Your task to perform on an android device: show emergency info Image 0: 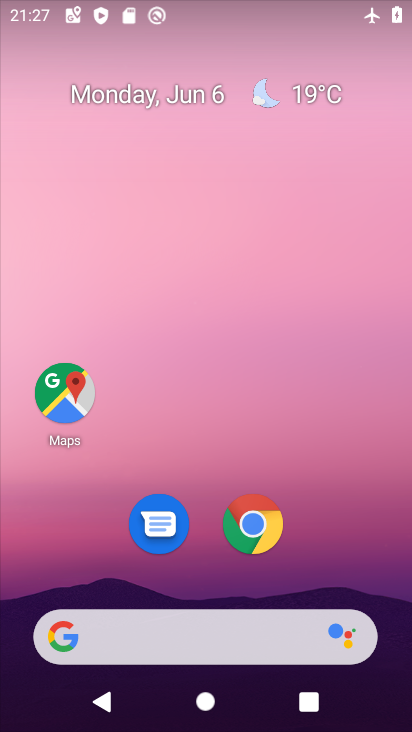
Step 0: drag from (219, 426) to (275, 2)
Your task to perform on an android device: show emergency info Image 1: 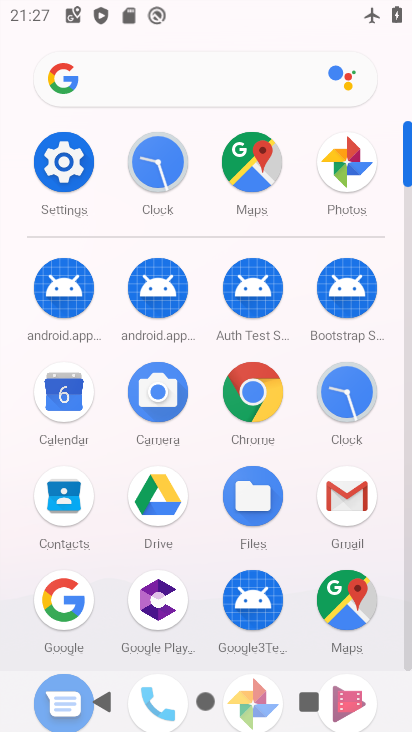
Step 1: click (71, 166)
Your task to perform on an android device: show emergency info Image 2: 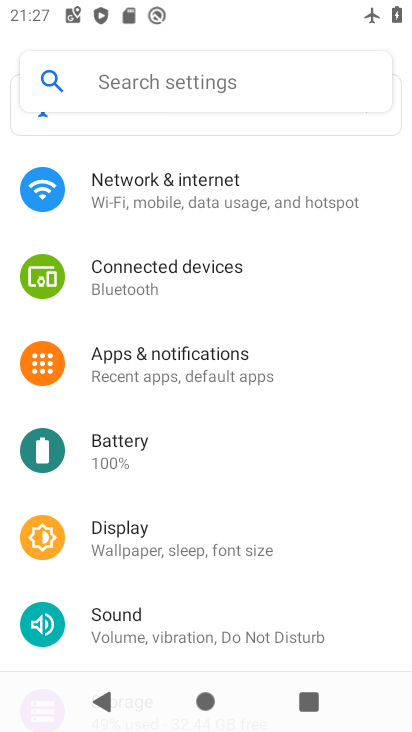
Step 2: drag from (231, 581) to (193, 32)
Your task to perform on an android device: show emergency info Image 3: 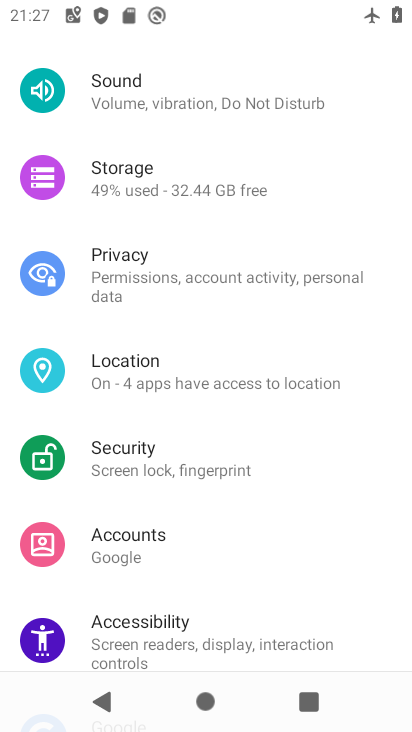
Step 3: drag from (206, 523) to (208, 71)
Your task to perform on an android device: show emergency info Image 4: 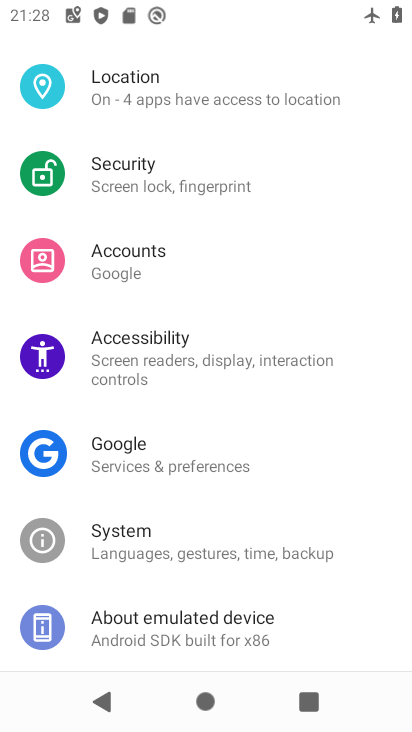
Step 4: click (204, 606)
Your task to perform on an android device: show emergency info Image 5: 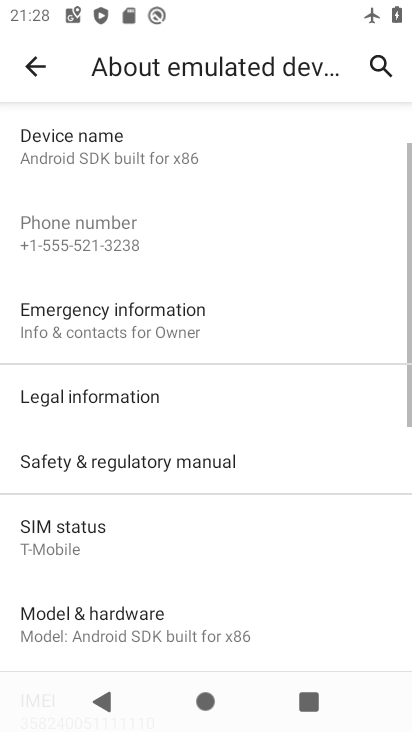
Step 5: click (213, 322)
Your task to perform on an android device: show emergency info Image 6: 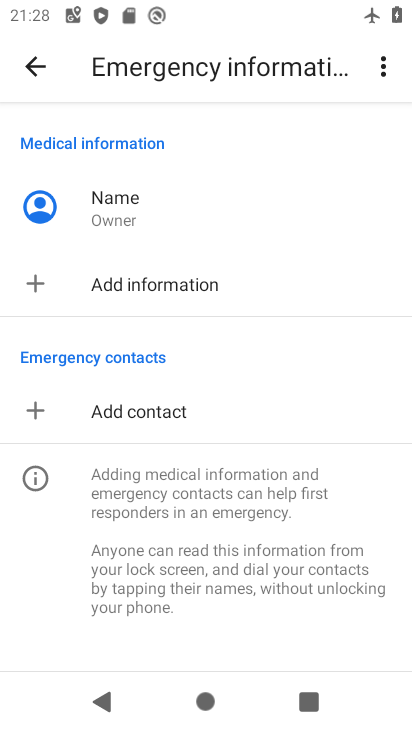
Step 6: task complete